Your task to perform on an android device: Is it going to rain today? Image 0: 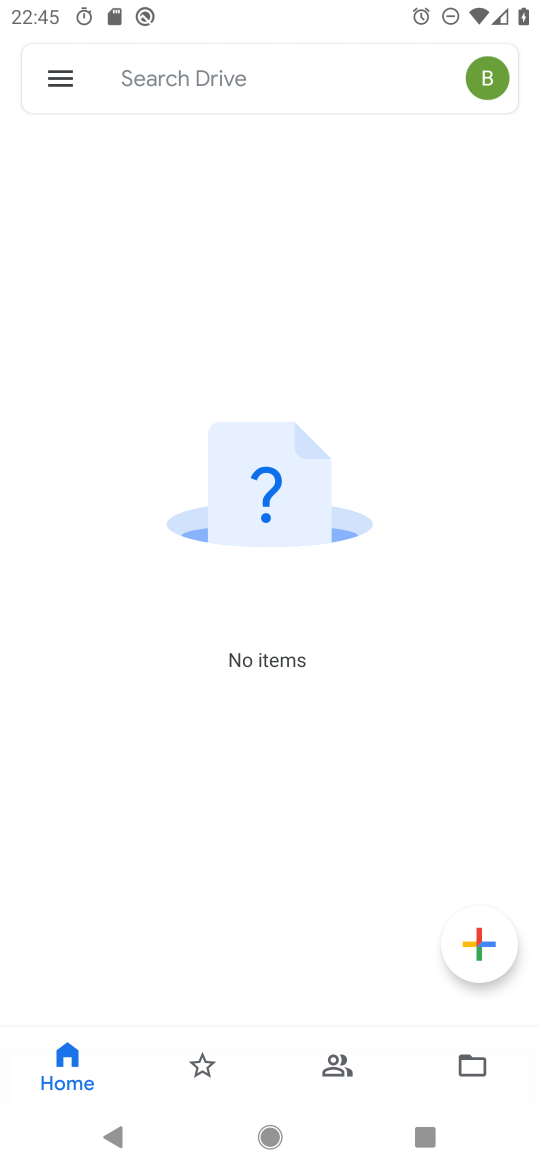
Step 0: press home button
Your task to perform on an android device: Is it going to rain today? Image 1: 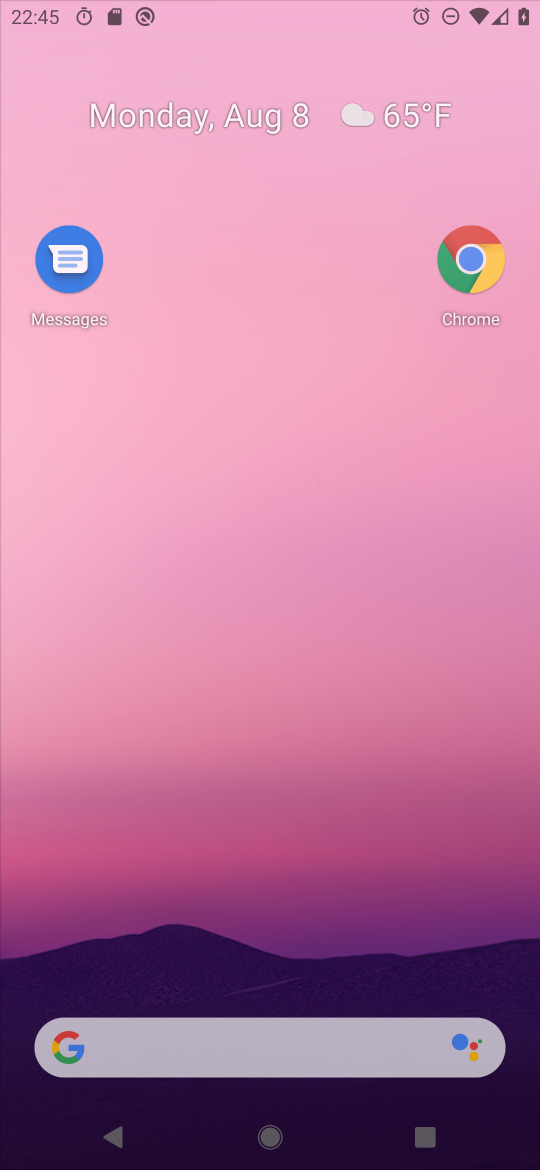
Step 1: drag from (330, 915) to (85, 32)
Your task to perform on an android device: Is it going to rain today? Image 2: 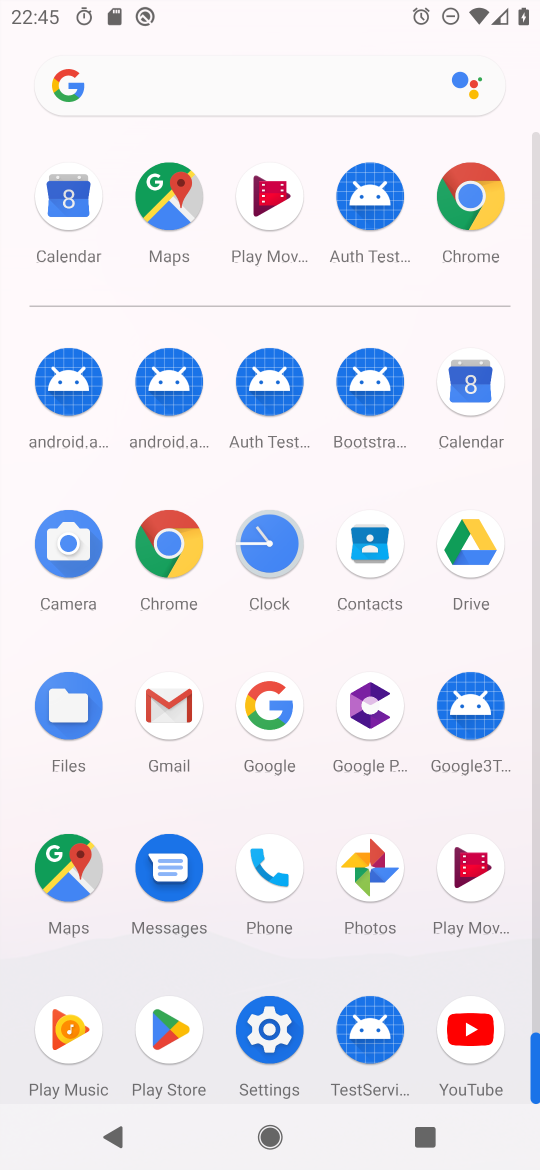
Step 2: click (279, 120)
Your task to perform on an android device: Is it going to rain today? Image 3: 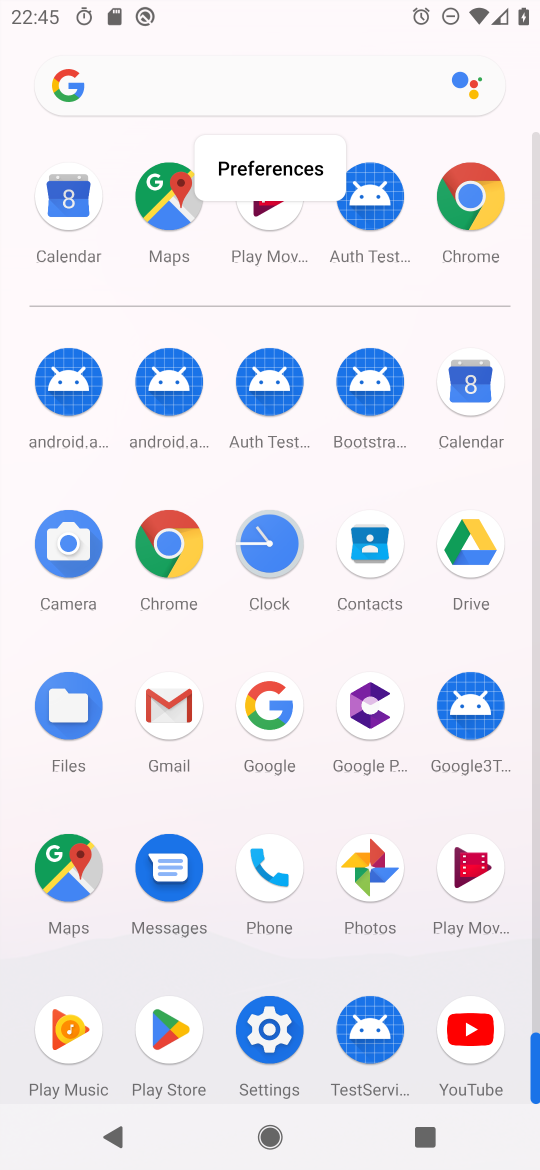
Step 3: click (212, 88)
Your task to perform on an android device: Is it going to rain today? Image 4: 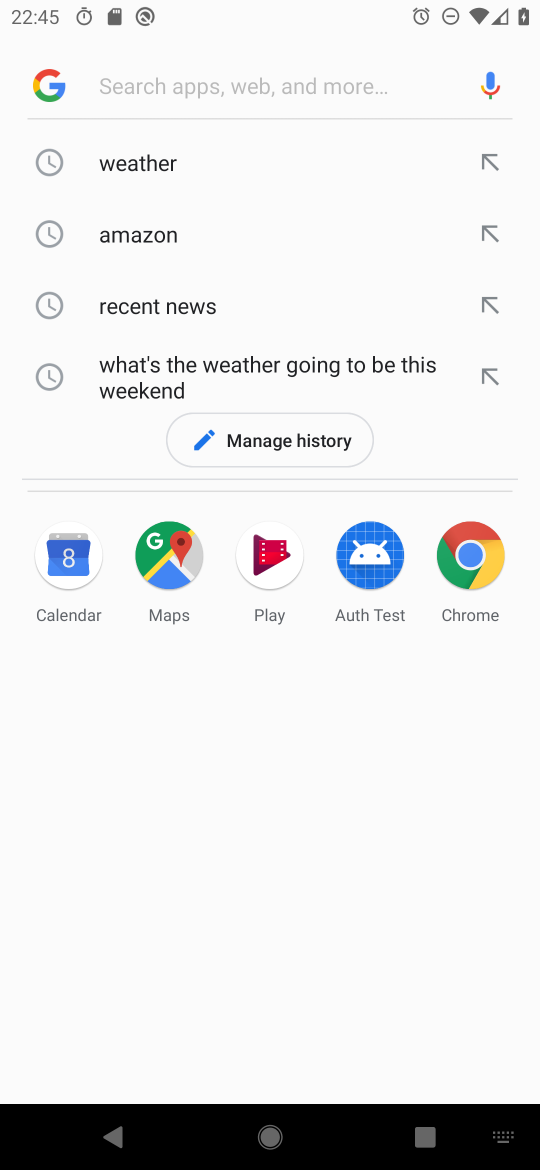
Step 4: type "Is it going to rain today?"
Your task to perform on an android device: Is it going to rain today? Image 5: 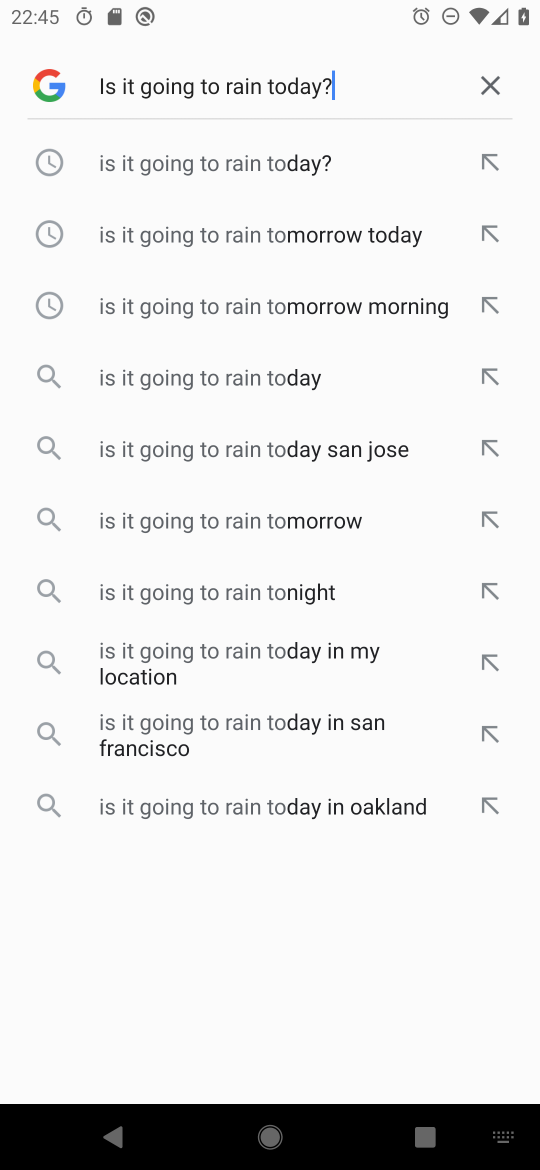
Step 5: type ""
Your task to perform on an android device: Is it going to rain today? Image 6: 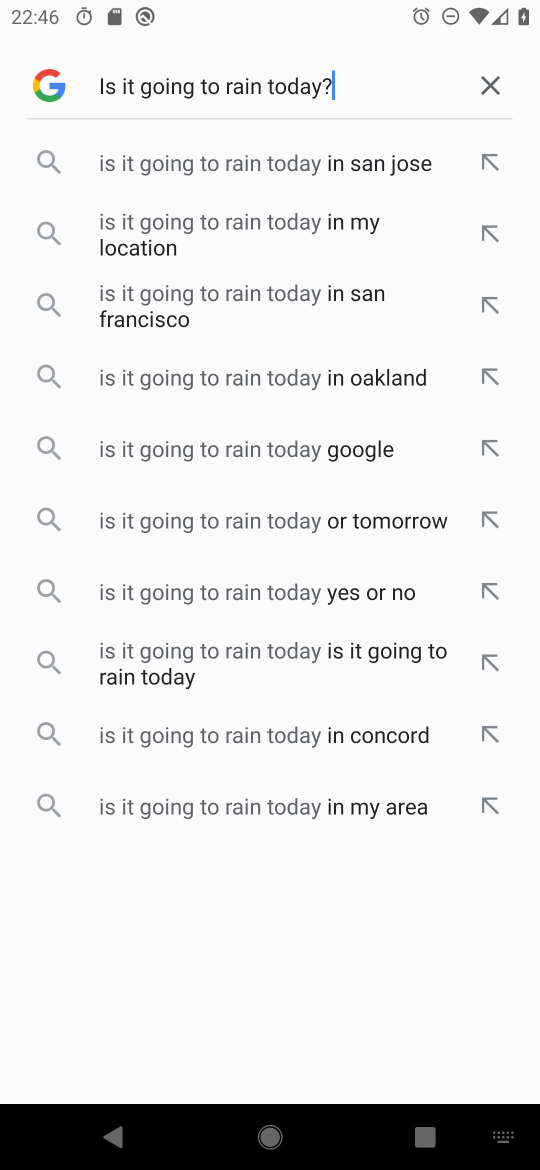
Step 6: click (151, 159)
Your task to perform on an android device: Is it going to rain today? Image 7: 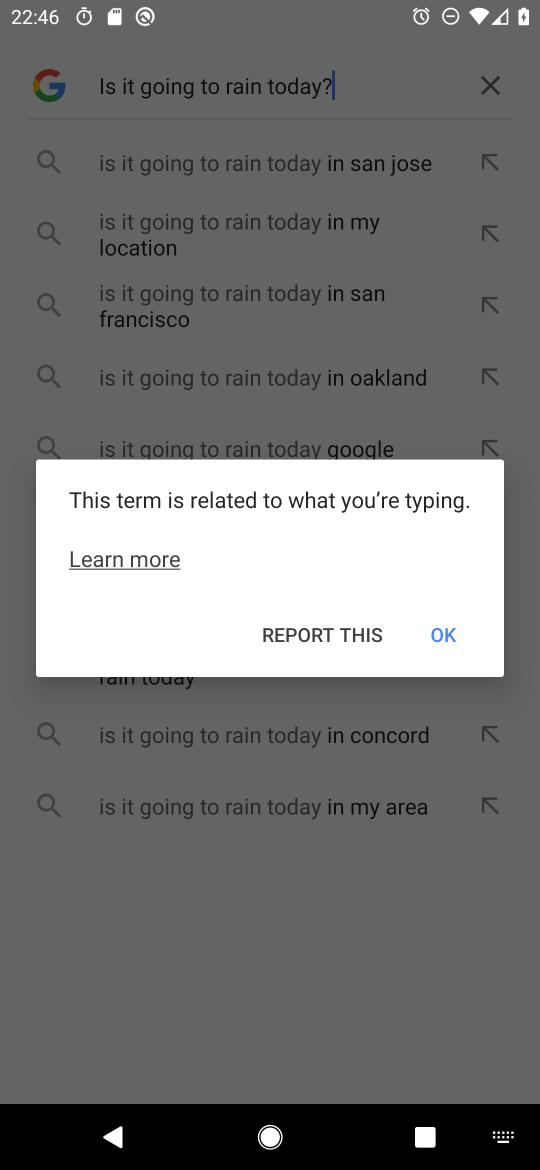
Step 7: click (434, 641)
Your task to perform on an android device: Is it going to rain today? Image 8: 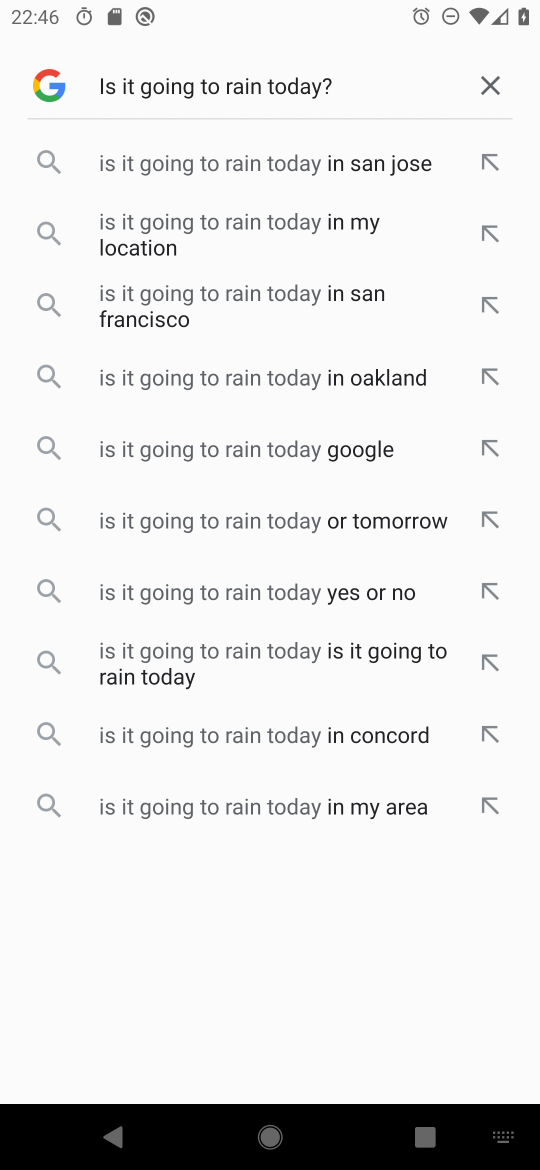
Step 8: click (103, 250)
Your task to perform on an android device: Is it going to rain today? Image 9: 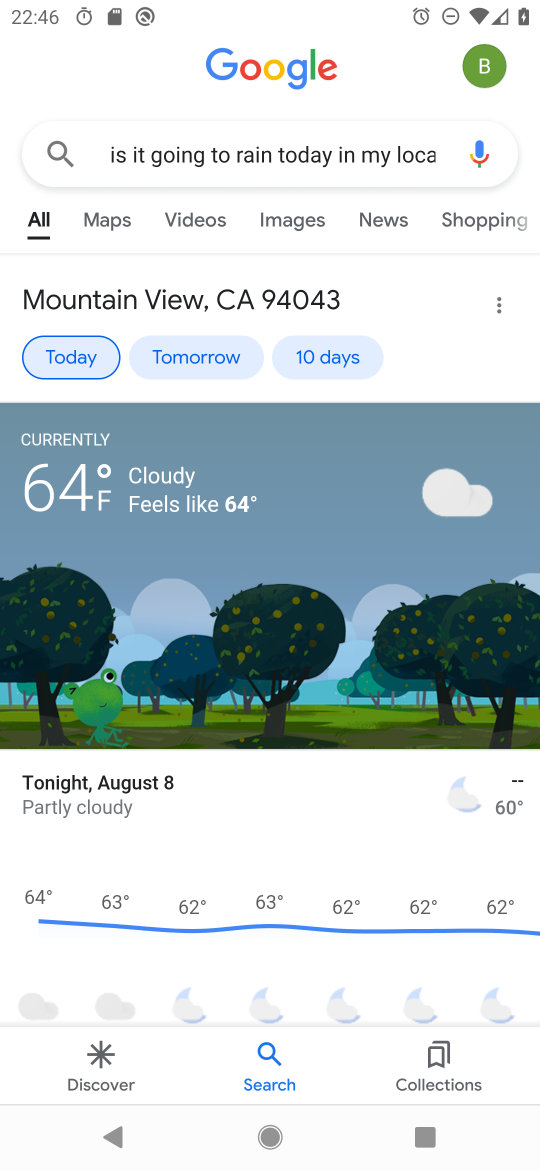
Step 9: task complete